Your task to perform on an android device: turn vacation reply on in the gmail app Image 0: 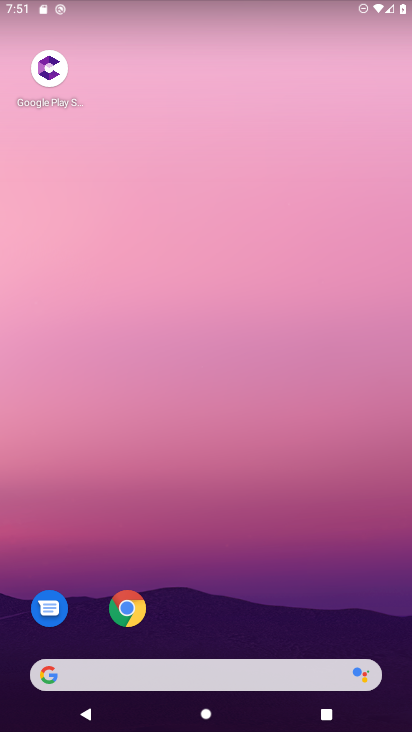
Step 0: drag from (190, 638) to (215, 201)
Your task to perform on an android device: turn vacation reply on in the gmail app Image 1: 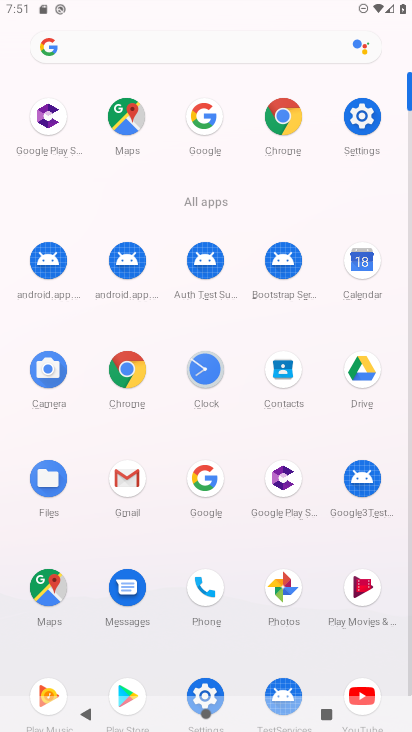
Step 1: click (129, 476)
Your task to perform on an android device: turn vacation reply on in the gmail app Image 2: 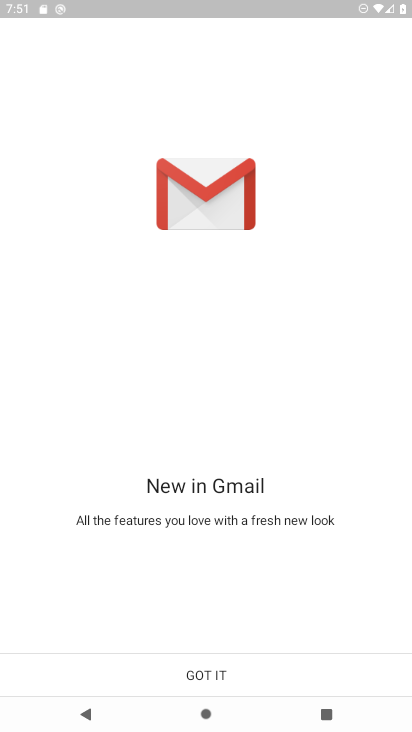
Step 2: click (207, 668)
Your task to perform on an android device: turn vacation reply on in the gmail app Image 3: 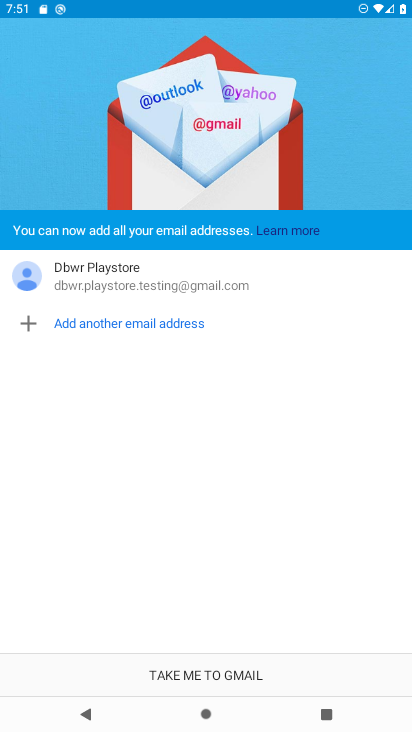
Step 3: click (207, 668)
Your task to perform on an android device: turn vacation reply on in the gmail app Image 4: 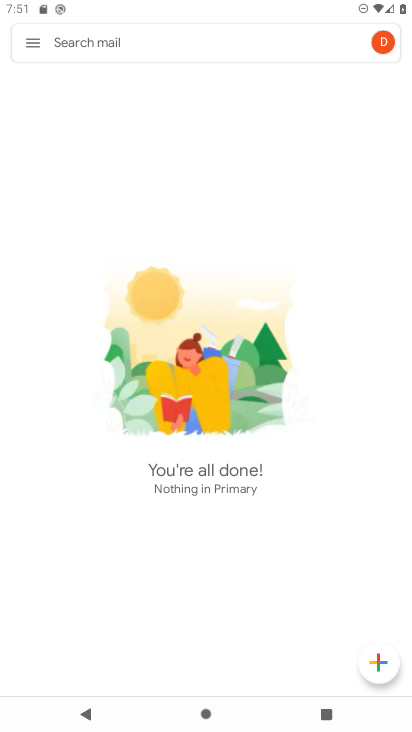
Step 4: click (27, 46)
Your task to perform on an android device: turn vacation reply on in the gmail app Image 5: 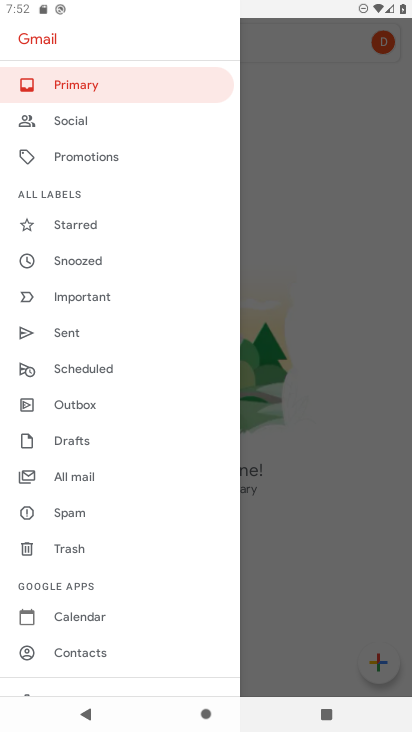
Step 5: drag from (94, 539) to (138, 416)
Your task to perform on an android device: turn vacation reply on in the gmail app Image 6: 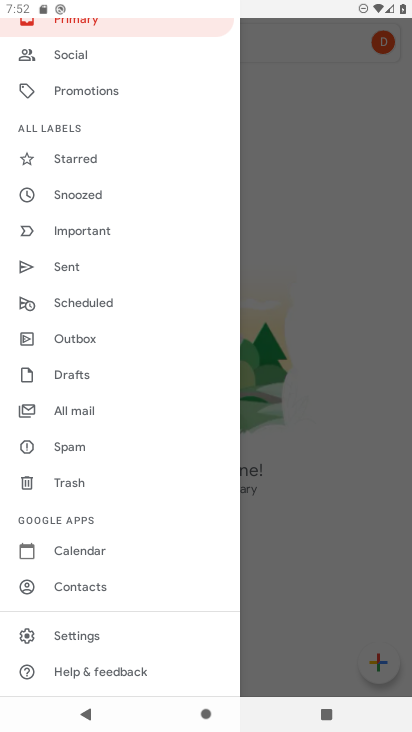
Step 6: click (80, 640)
Your task to perform on an android device: turn vacation reply on in the gmail app Image 7: 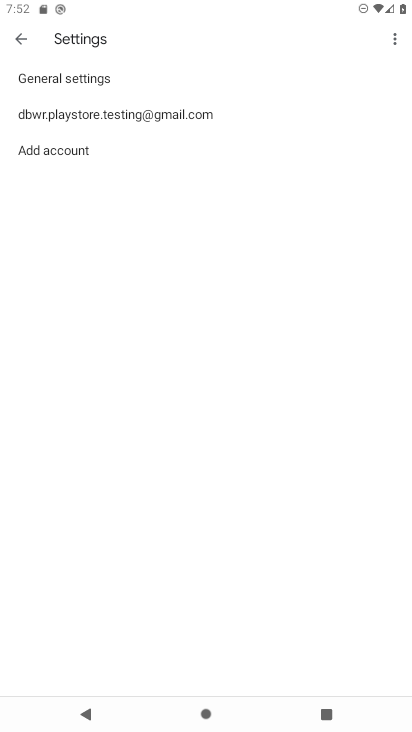
Step 7: click (147, 112)
Your task to perform on an android device: turn vacation reply on in the gmail app Image 8: 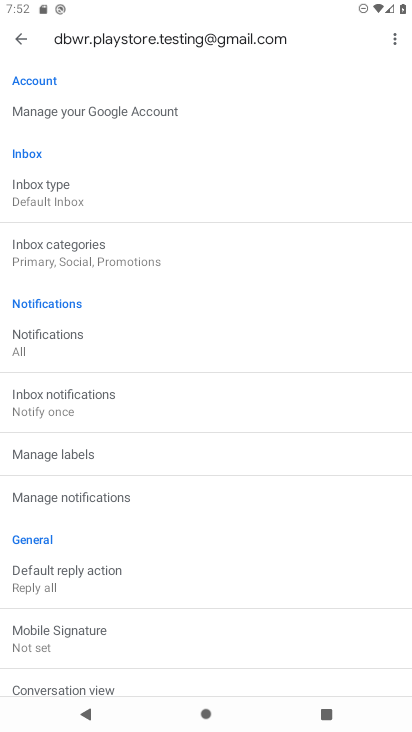
Step 8: drag from (99, 552) to (151, 461)
Your task to perform on an android device: turn vacation reply on in the gmail app Image 9: 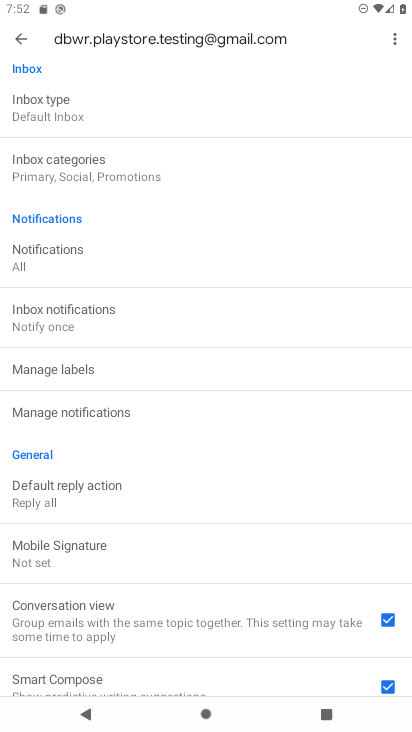
Step 9: drag from (136, 554) to (156, 483)
Your task to perform on an android device: turn vacation reply on in the gmail app Image 10: 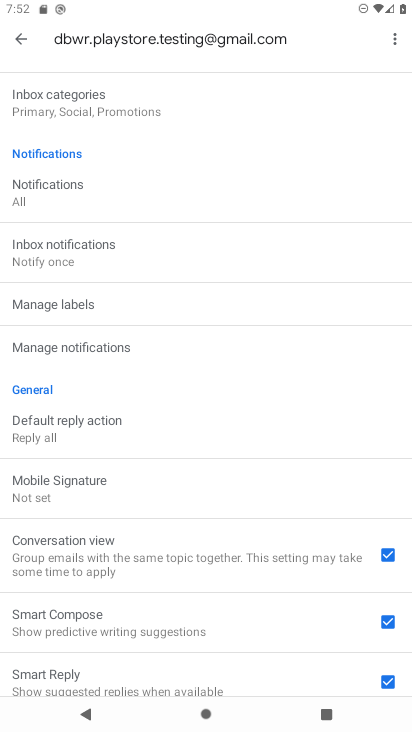
Step 10: drag from (105, 593) to (155, 516)
Your task to perform on an android device: turn vacation reply on in the gmail app Image 11: 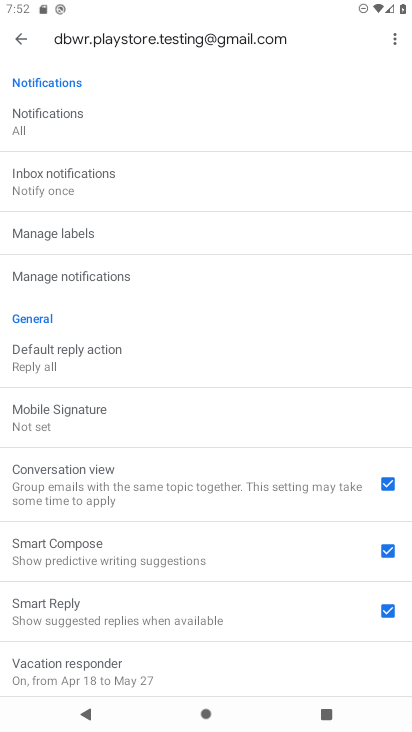
Step 11: drag from (136, 596) to (176, 530)
Your task to perform on an android device: turn vacation reply on in the gmail app Image 12: 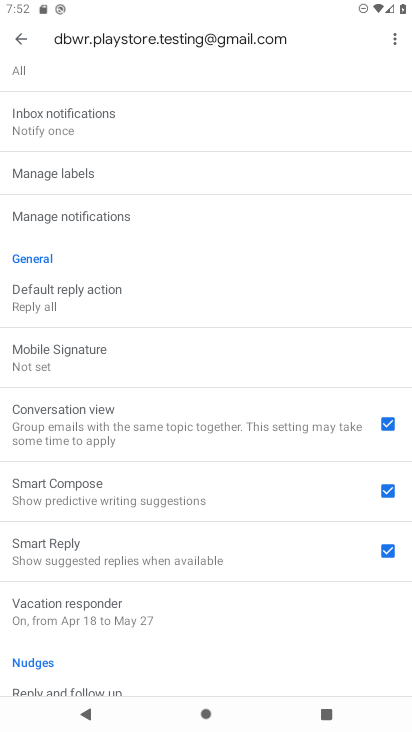
Step 12: click (92, 614)
Your task to perform on an android device: turn vacation reply on in the gmail app Image 13: 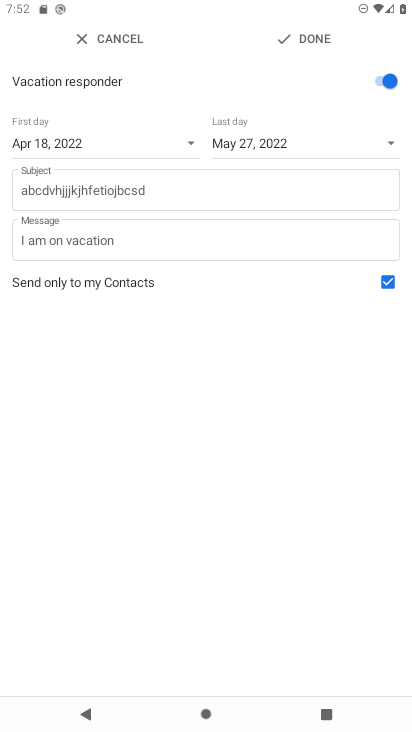
Step 13: task complete